Your task to perform on an android device: Go to Yahoo.com Image 0: 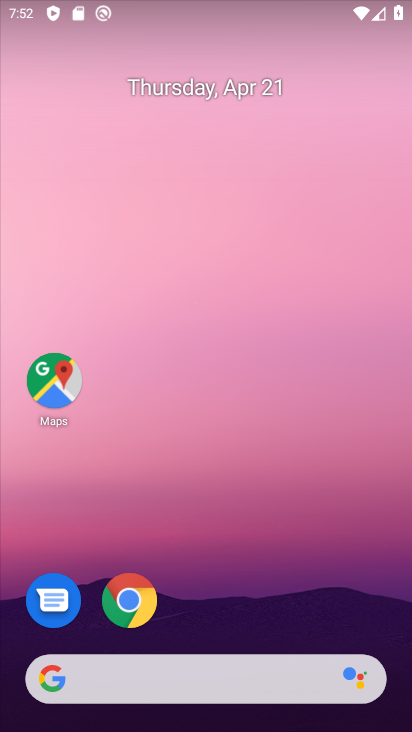
Step 0: click (140, 599)
Your task to perform on an android device: Go to Yahoo.com Image 1: 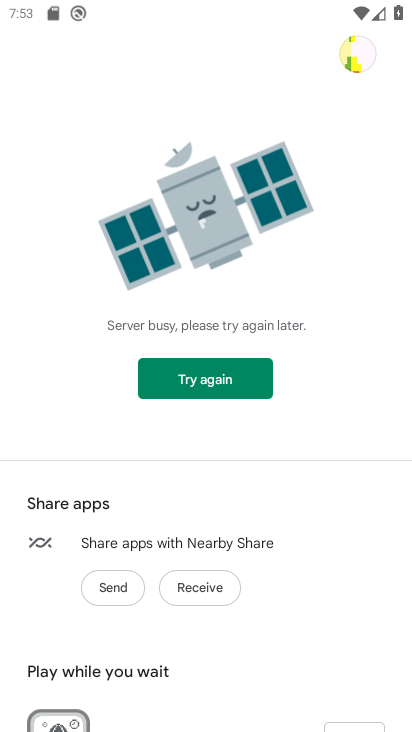
Step 1: press home button
Your task to perform on an android device: Go to Yahoo.com Image 2: 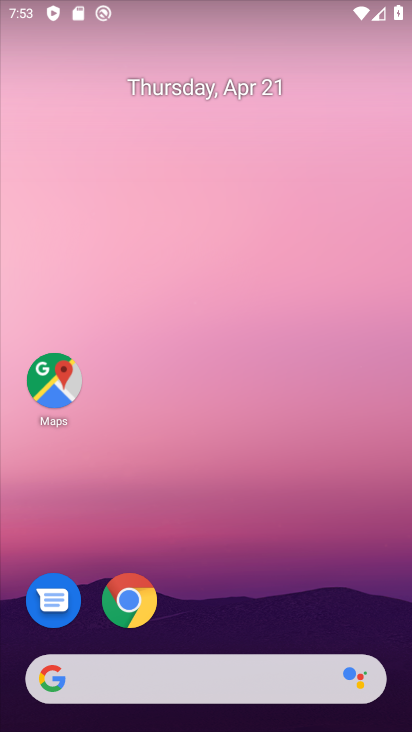
Step 2: drag from (249, 574) to (247, 251)
Your task to perform on an android device: Go to Yahoo.com Image 3: 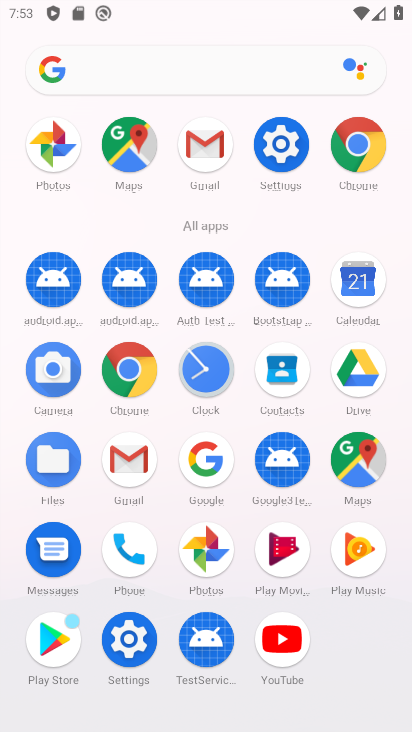
Step 3: click (362, 174)
Your task to perform on an android device: Go to Yahoo.com Image 4: 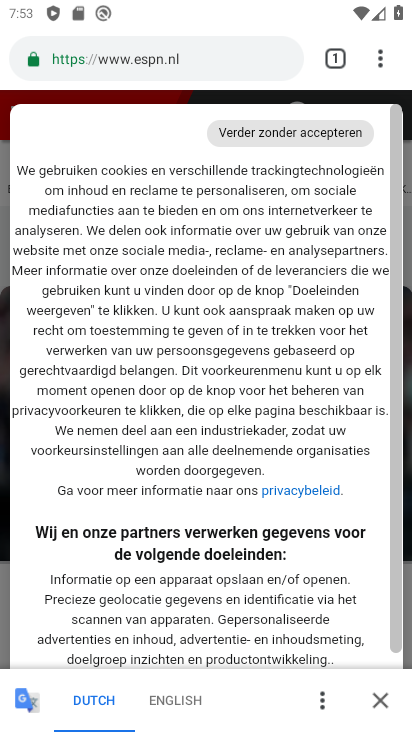
Step 4: press back button
Your task to perform on an android device: Go to Yahoo.com Image 5: 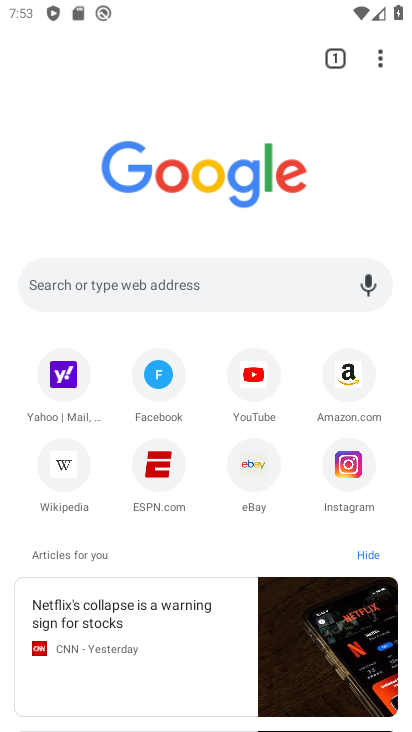
Step 5: click (72, 382)
Your task to perform on an android device: Go to Yahoo.com Image 6: 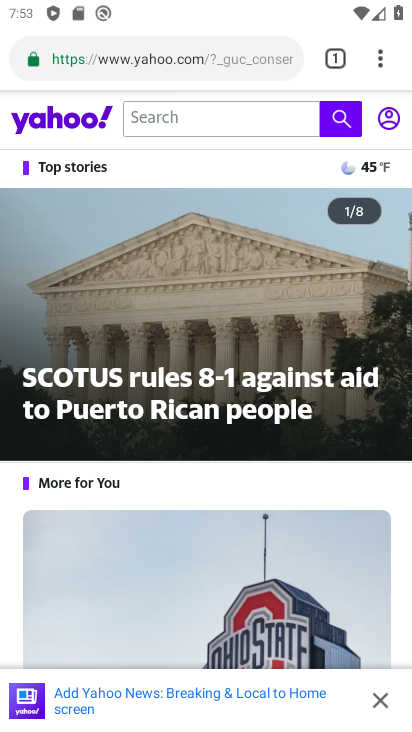
Step 6: task complete